Your task to perform on an android device: create a new album in the google photos Image 0: 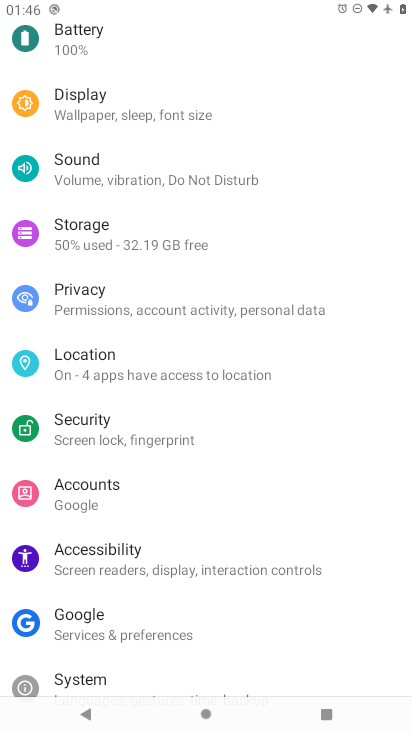
Step 0: press home button
Your task to perform on an android device: create a new album in the google photos Image 1: 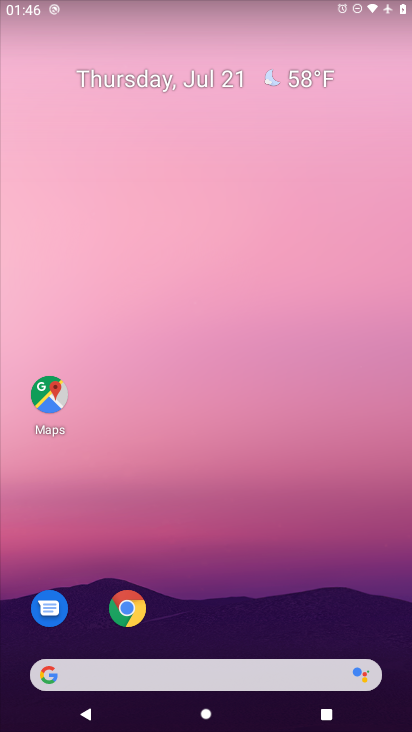
Step 1: drag from (231, 638) to (247, 111)
Your task to perform on an android device: create a new album in the google photos Image 2: 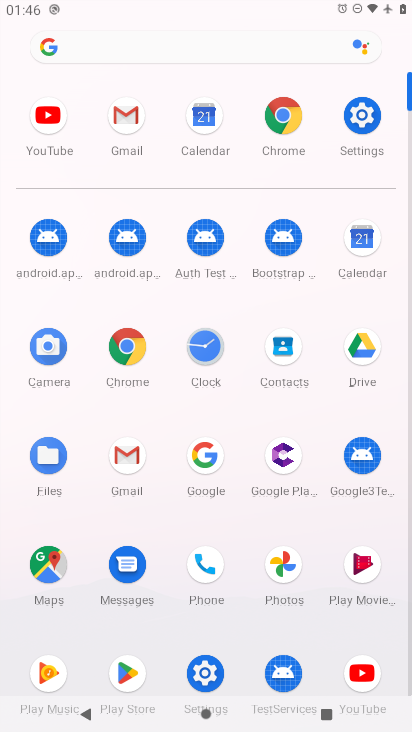
Step 2: click (285, 567)
Your task to perform on an android device: create a new album in the google photos Image 3: 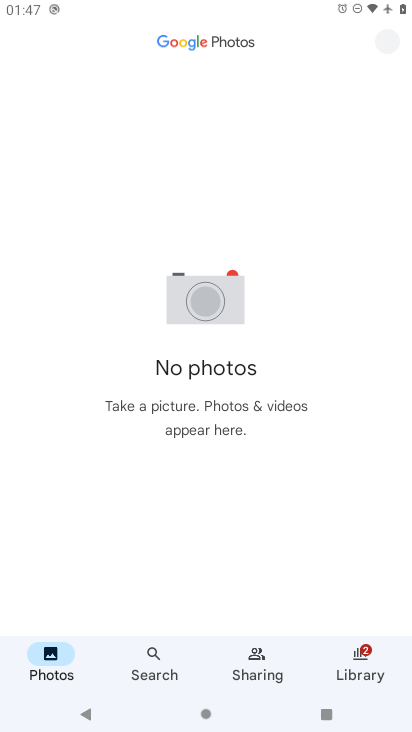
Step 3: click (37, 650)
Your task to perform on an android device: create a new album in the google photos Image 4: 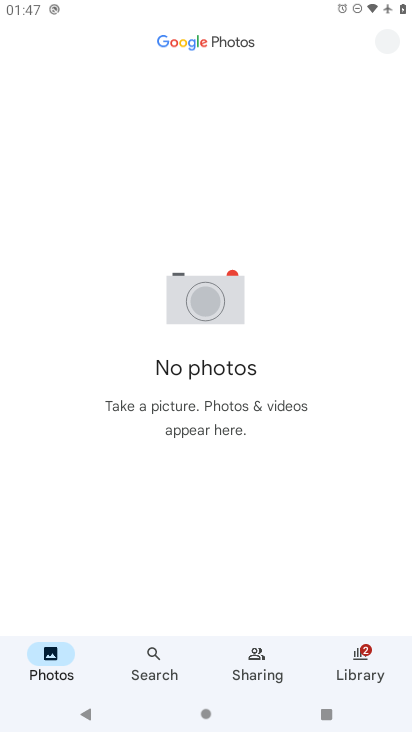
Step 4: task complete